Your task to perform on an android device: open app "Pluto TV - Live TV and Movies" (install if not already installed) Image 0: 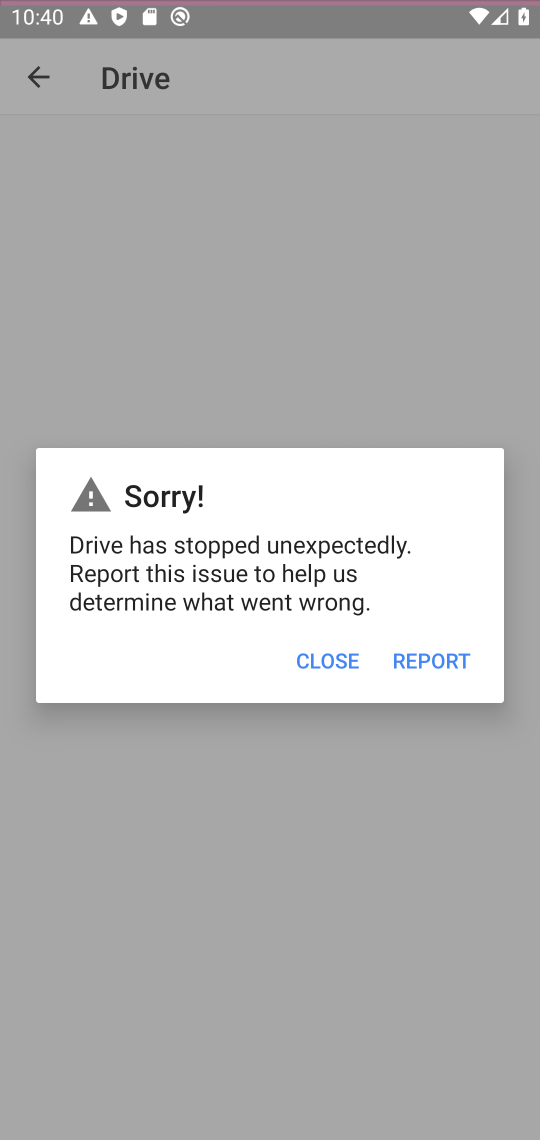
Step 0: press home button
Your task to perform on an android device: open app "Pluto TV - Live TV and Movies" (install if not already installed) Image 1: 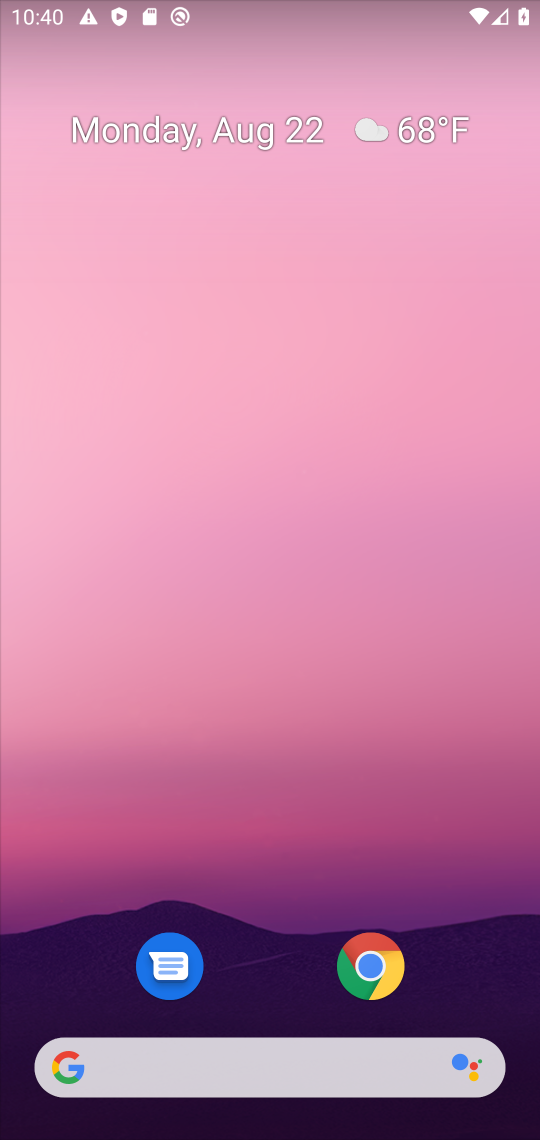
Step 1: drag from (460, 917) to (442, 81)
Your task to perform on an android device: open app "Pluto TV - Live TV and Movies" (install if not already installed) Image 2: 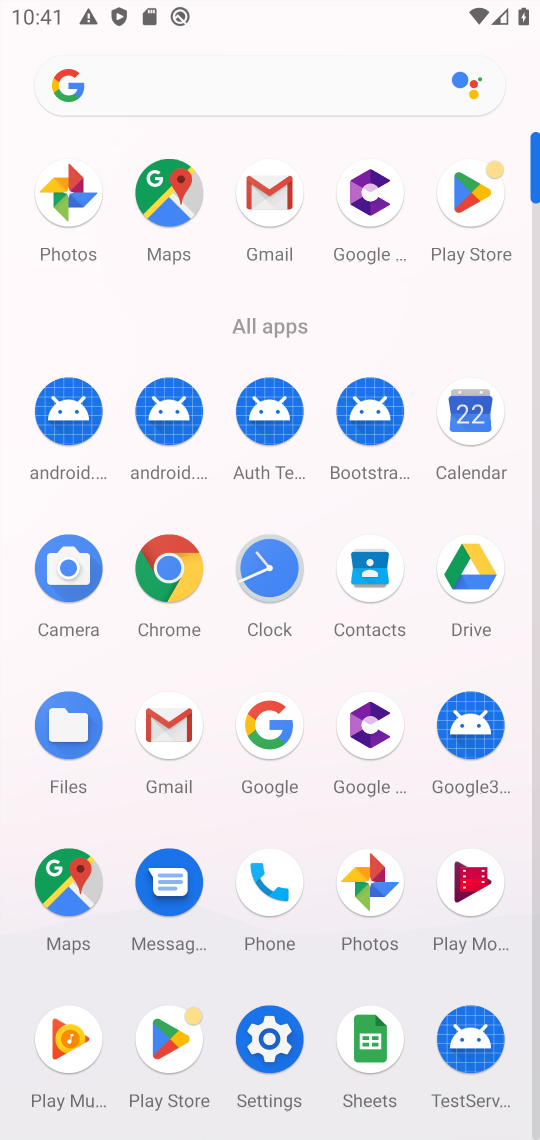
Step 2: click (475, 201)
Your task to perform on an android device: open app "Pluto TV - Live TV and Movies" (install if not already installed) Image 3: 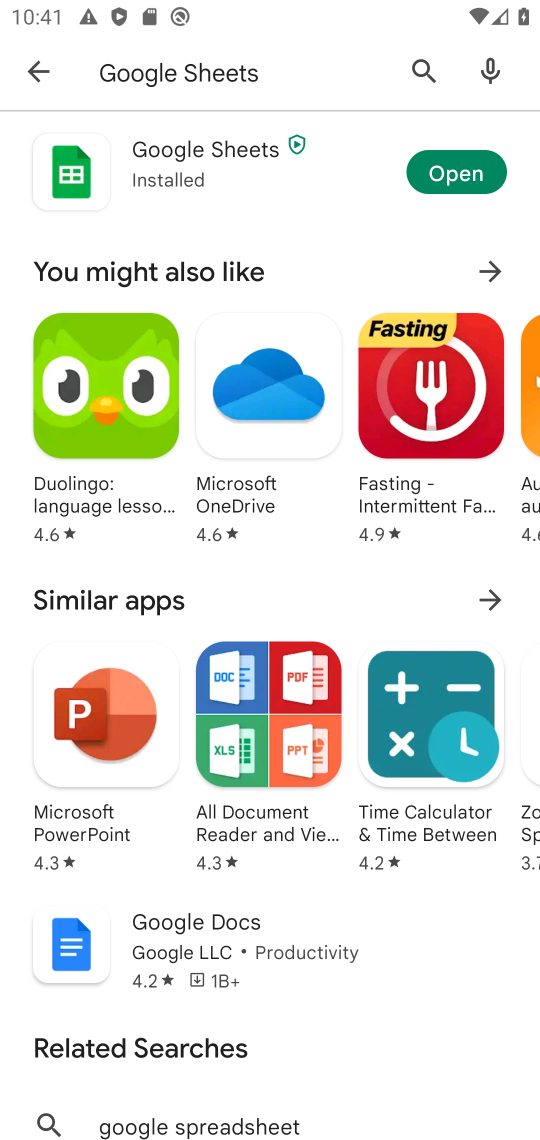
Step 3: press back button
Your task to perform on an android device: open app "Pluto TV - Live TV and Movies" (install if not already installed) Image 4: 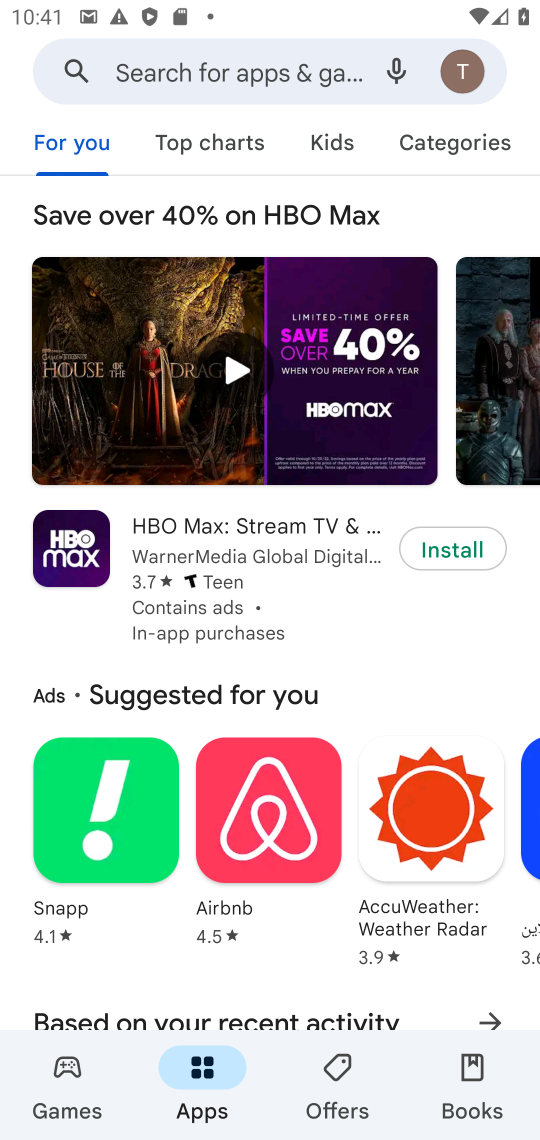
Step 4: click (220, 76)
Your task to perform on an android device: open app "Pluto TV - Live TV and Movies" (install if not already installed) Image 5: 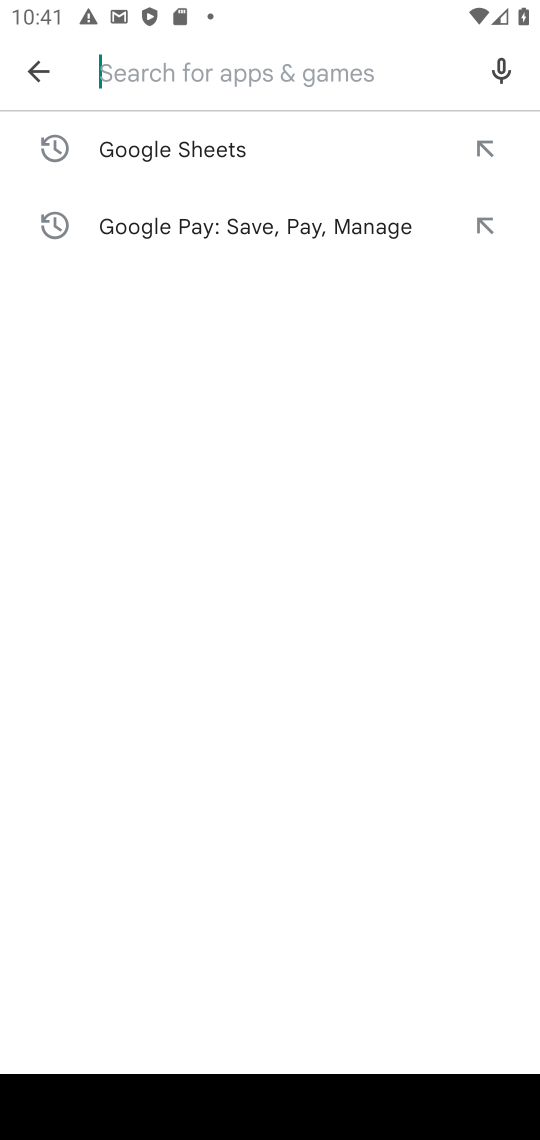
Step 5: type "Pluto TV - Live TV and Movies"
Your task to perform on an android device: open app "Pluto TV - Live TV and Movies" (install if not already installed) Image 6: 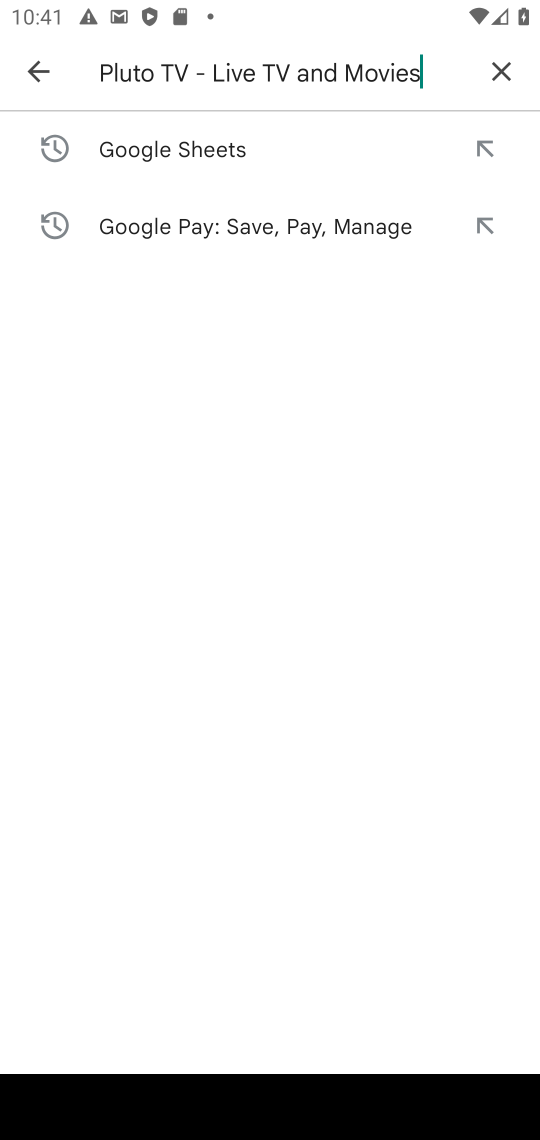
Step 6: press enter
Your task to perform on an android device: open app "Pluto TV - Live TV and Movies" (install if not already installed) Image 7: 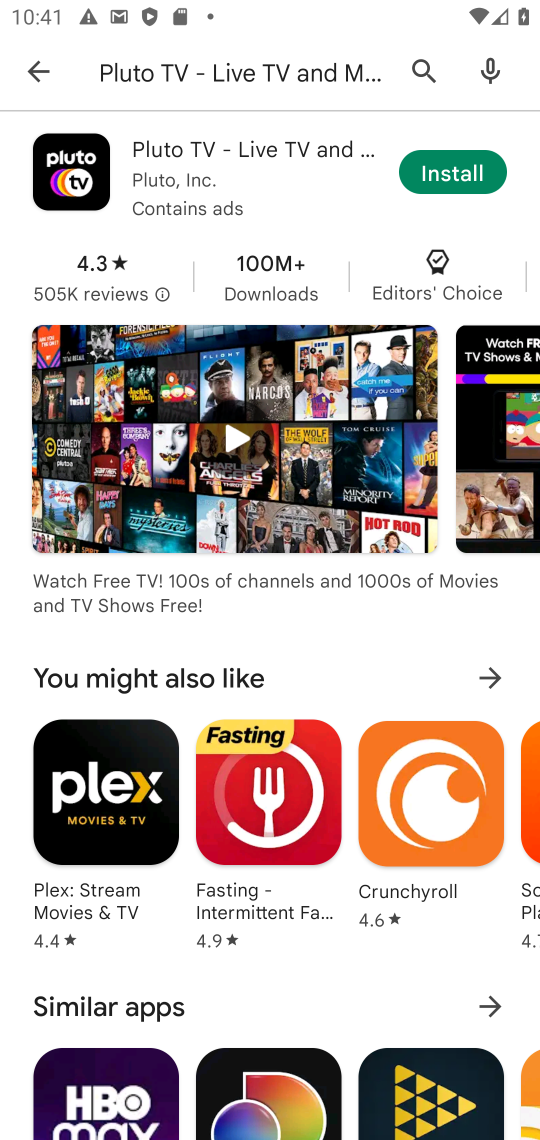
Step 7: click (453, 176)
Your task to perform on an android device: open app "Pluto TV - Live TV and Movies" (install if not already installed) Image 8: 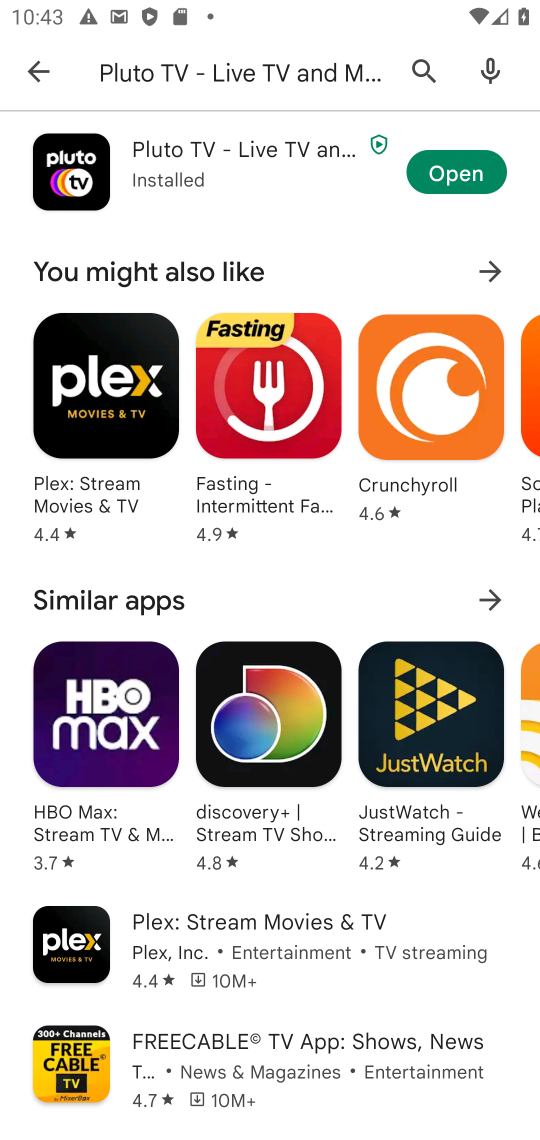
Step 8: click (455, 168)
Your task to perform on an android device: open app "Pluto TV - Live TV and Movies" (install if not already installed) Image 9: 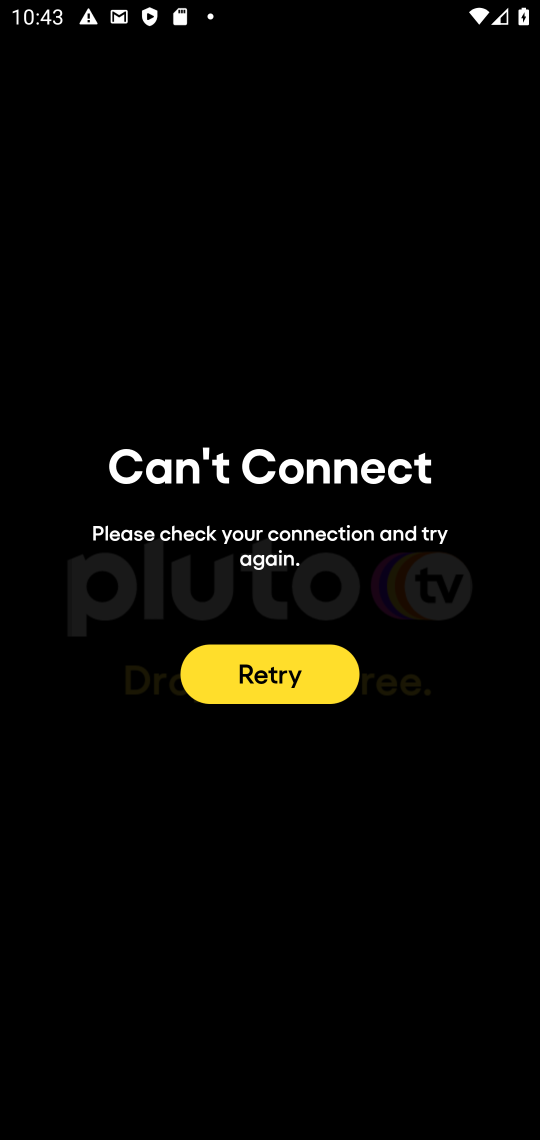
Step 9: task complete